Your task to perform on an android device: search for starred emails in the gmail app Image 0: 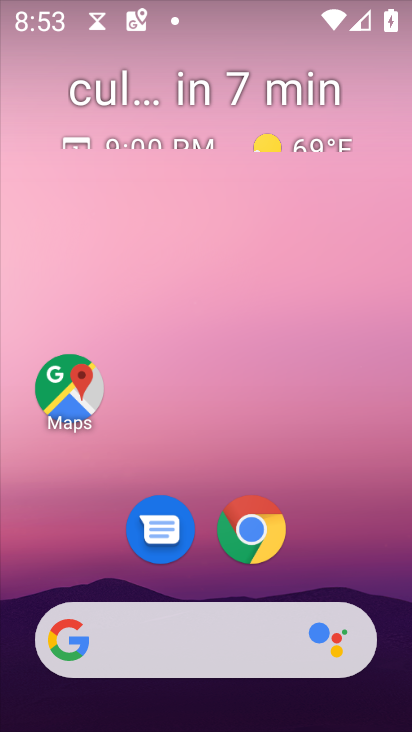
Step 0: drag from (339, 514) to (280, 114)
Your task to perform on an android device: search for starred emails in the gmail app Image 1: 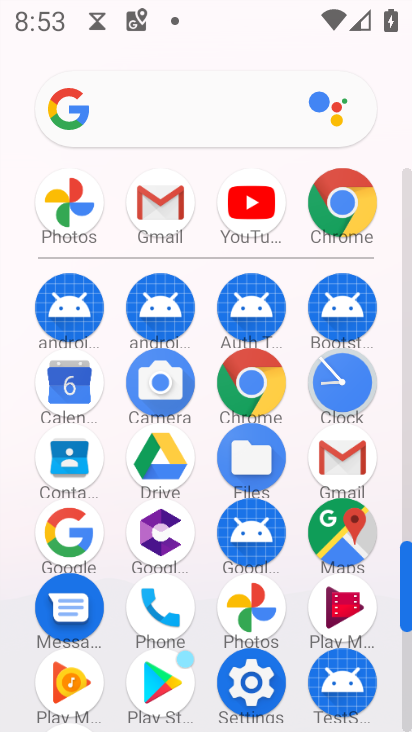
Step 1: click (143, 199)
Your task to perform on an android device: search for starred emails in the gmail app Image 2: 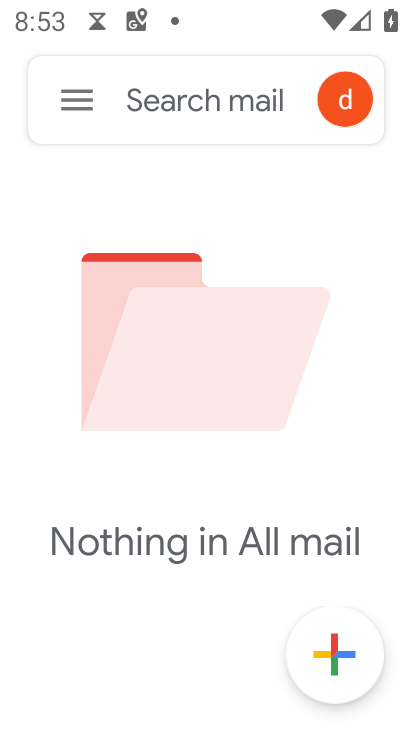
Step 2: click (85, 101)
Your task to perform on an android device: search for starred emails in the gmail app Image 3: 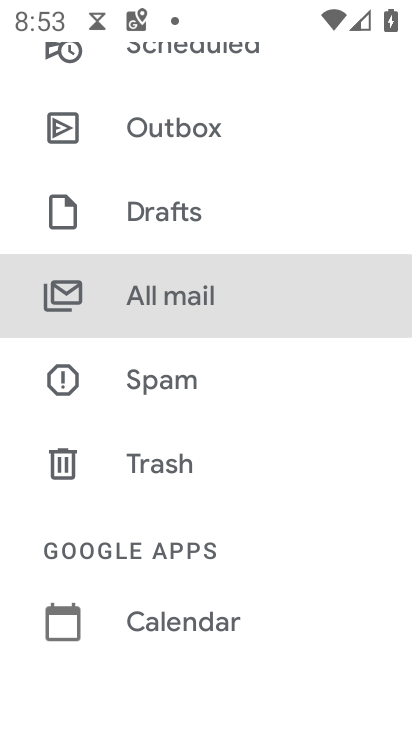
Step 3: drag from (227, 143) to (306, 632)
Your task to perform on an android device: search for starred emails in the gmail app Image 4: 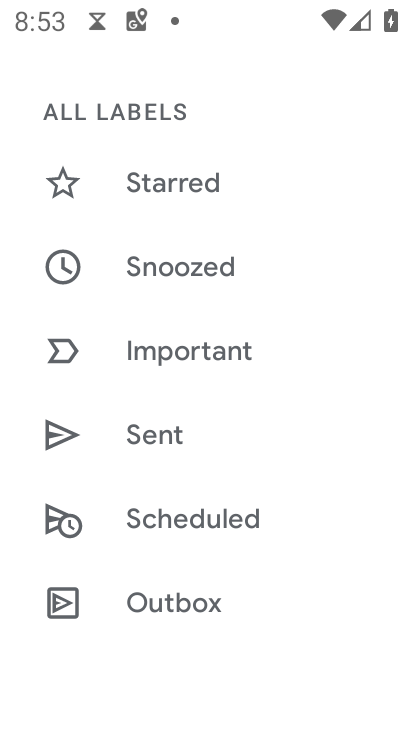
Step 4: click (204, 179)
Your task to perform on an android device: search for starred emails in the gmail app Image 5: 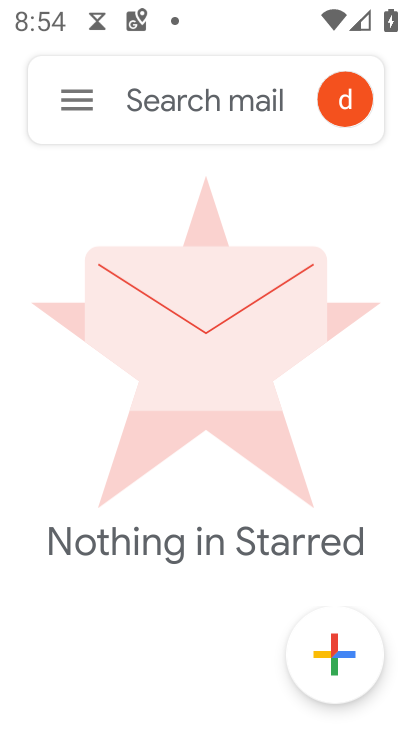
Step 5: task complete